Your task to perform on an android device: turn pop-ups off in chrome Image 0: 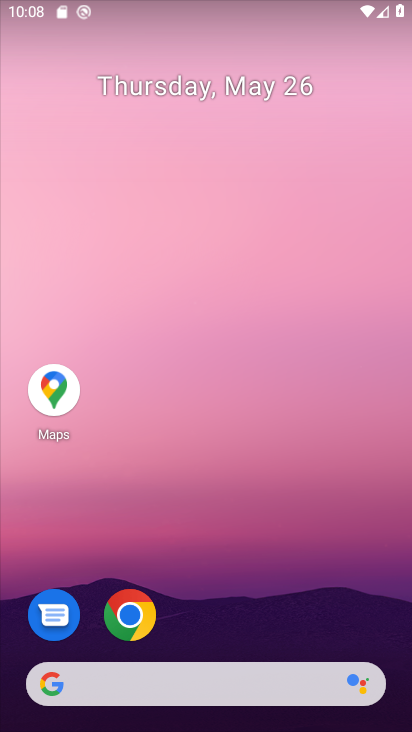
Step 0: click (135, 611)
Your task to perform on an android device: turn pop-ups off in chrome Image 1: 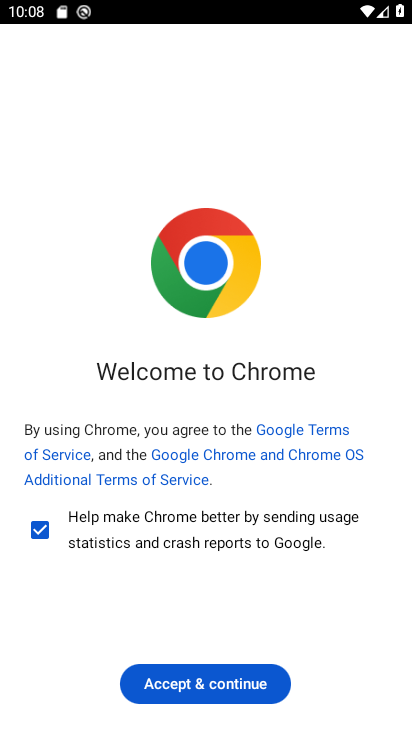
Step 1: click (217, 691)
Your task to perform on an android device: turn pop-ups off in chrome Image 2: 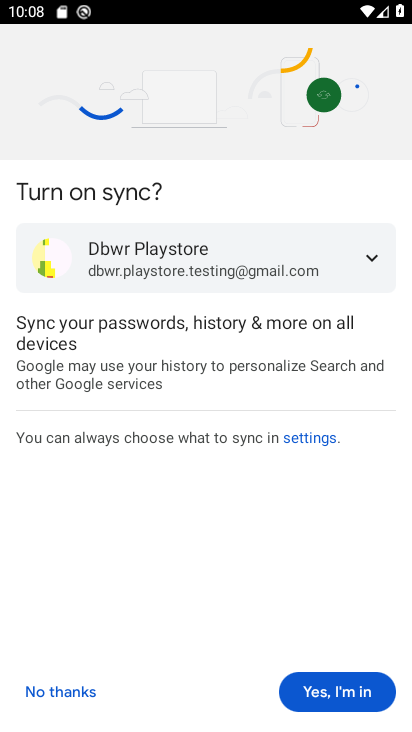
Step 2: click (326, 684)
Your task to perform on an android device: turn pop-ups off in chrome Image 3: 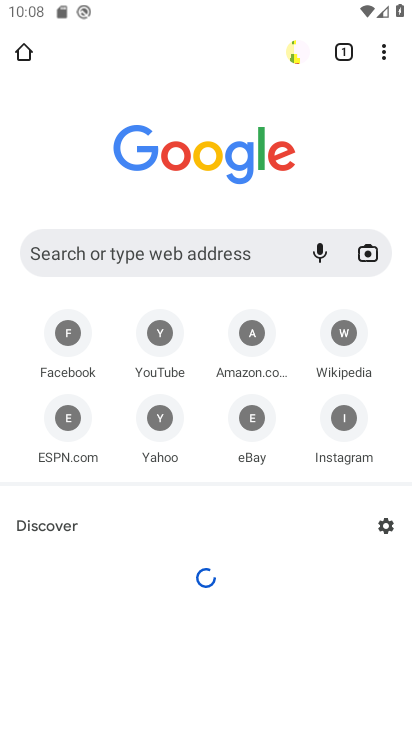
Step 3: click (381, 58)
Your task to perform on an android device: turn pop-ups off in chrome Image 4: 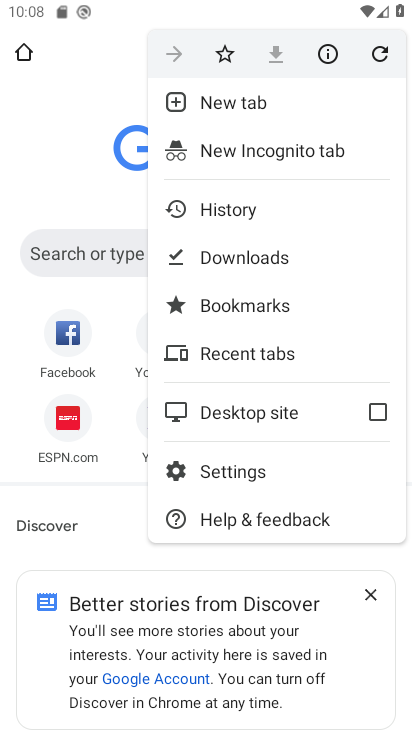
Step 4: click (286, 474)
Your task to perform on an android device: turn pop-ups off in chrome Image 5: 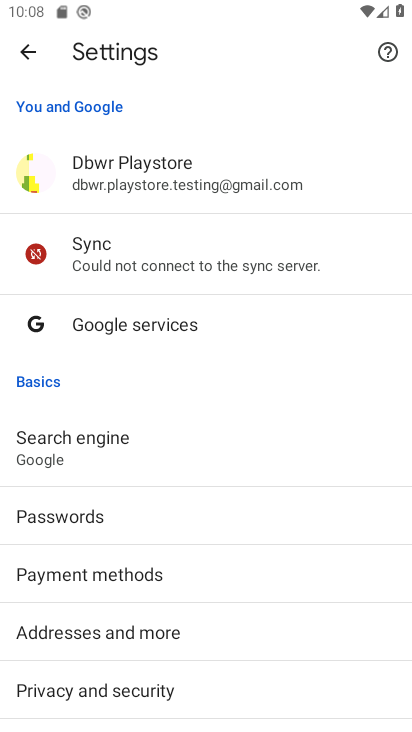
Step 5: drag from (245, 593) to (249, 290)
Your task to perform on an android device: turn pop-ups off in chrome Image 6: 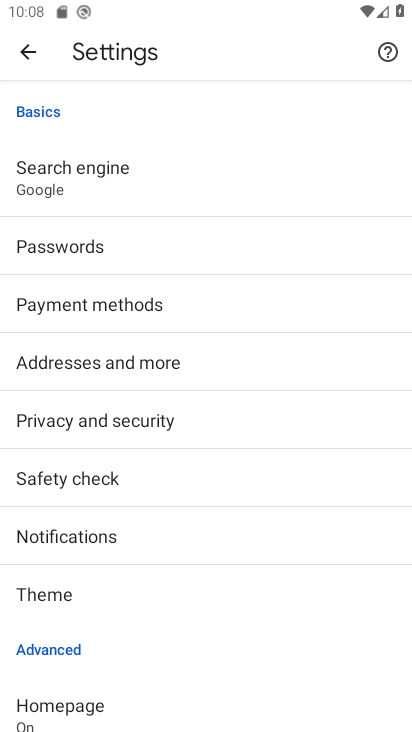
Step 6: drag from (159, 629) to (150, 388)
Your task to perform on an android device: turn pop-ups off in chrome Image 7: 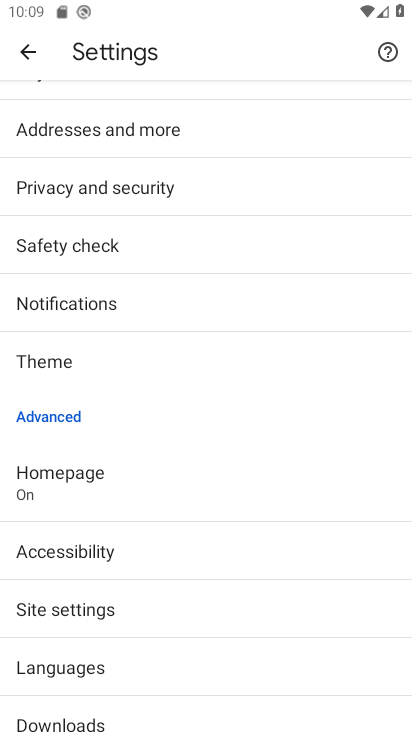
Step 7: click (112, 617)
Your task to perform on an android device: turn pop-ups off in chrome Image 8: 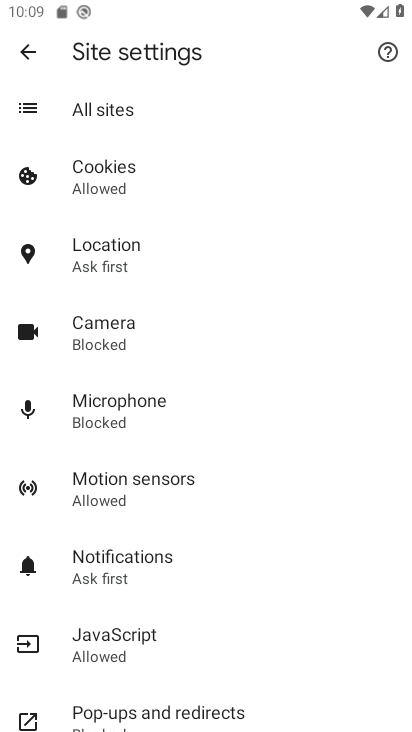
Step 8: drag from (236, 659) to (236, 474)
Your task to perform on an android device: turn pop-ups off in chrome Image 9: 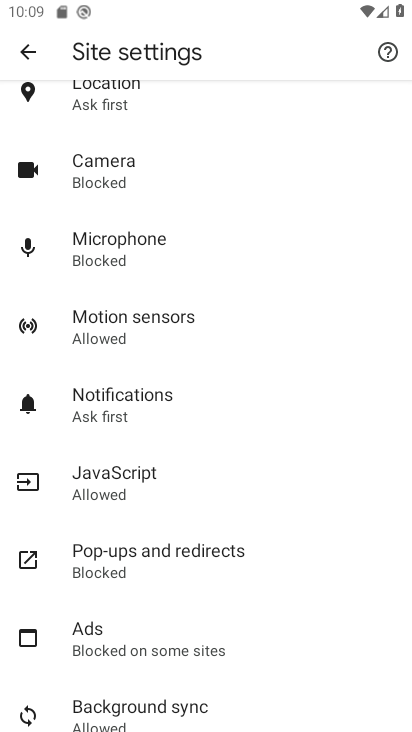
Step 9: click (224, 556)
Your task to perform on an android device: turn pop-ups off in chrome Image 10: 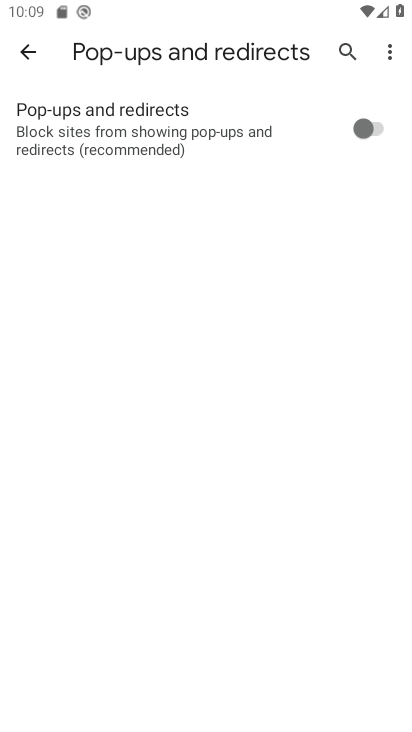
Step 10: task complete